Your task to perform on an android device: Check the settings for the Twitter app Image 0: 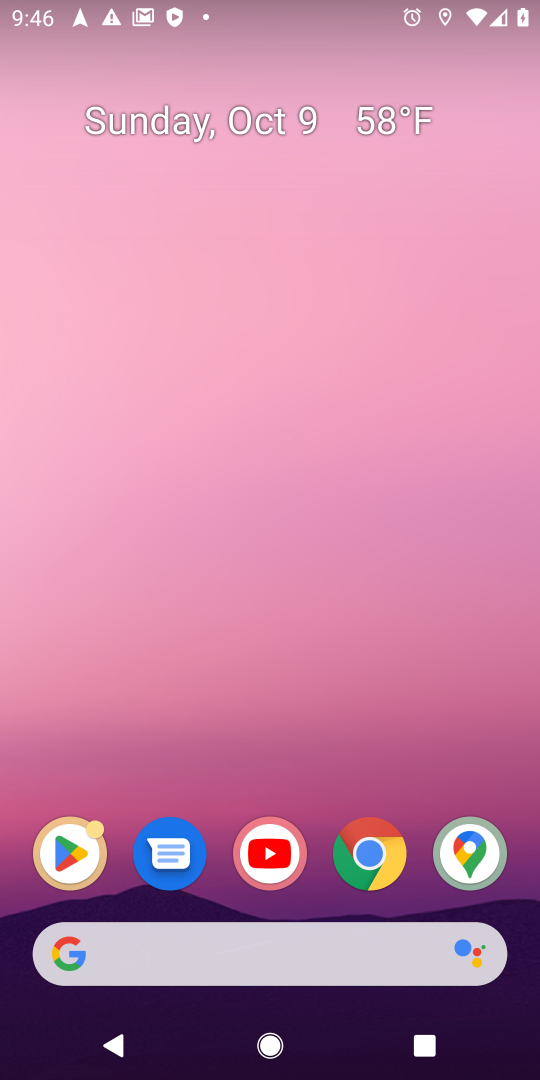
Step 0: drag from (405, 799) to (417, 312)
Your task to perform on an android device: Check the settings for the Twitter app Image 1: 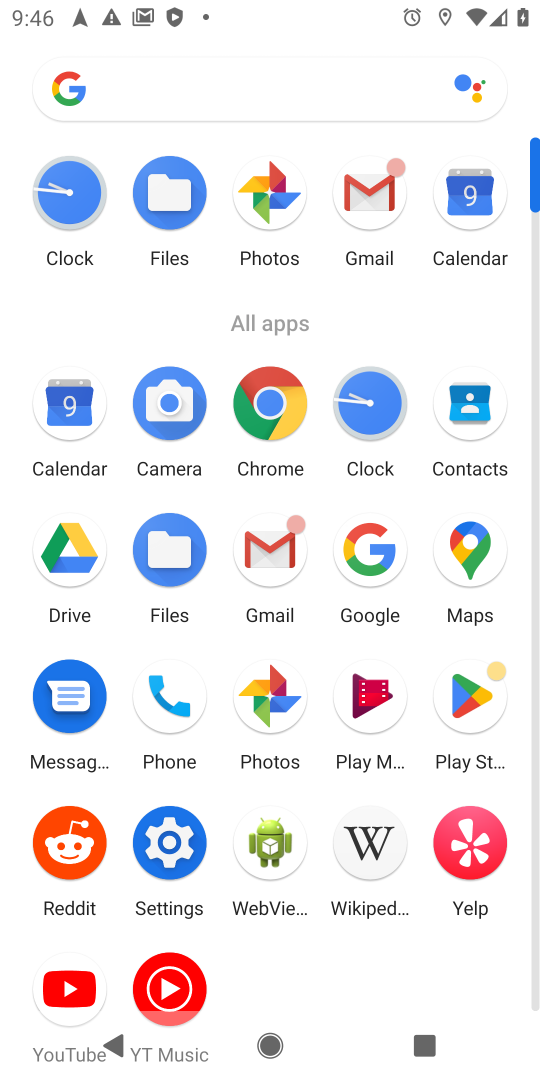
Step 1: click (479, 706)
Your task to perform on an android device: Check the settings for the Twitter app Image 2: 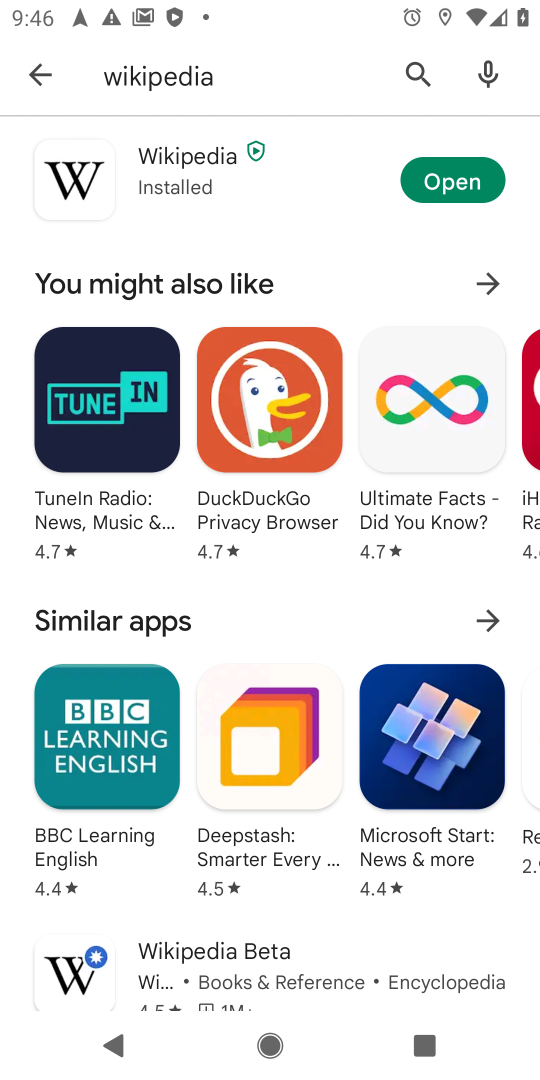
Step 2: click (413, 80)
Your task to perform on an android device: Check the settings for the Twitter app Image 3: 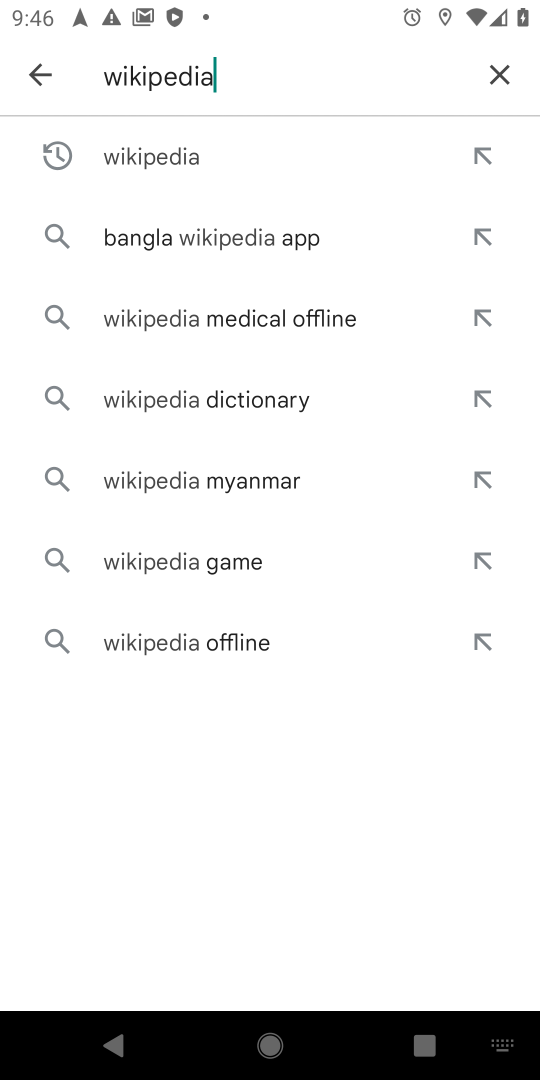
Step 3: click (503, 73)
Your task to perform on an android device: Check the settings for the Twitter app Image 4: 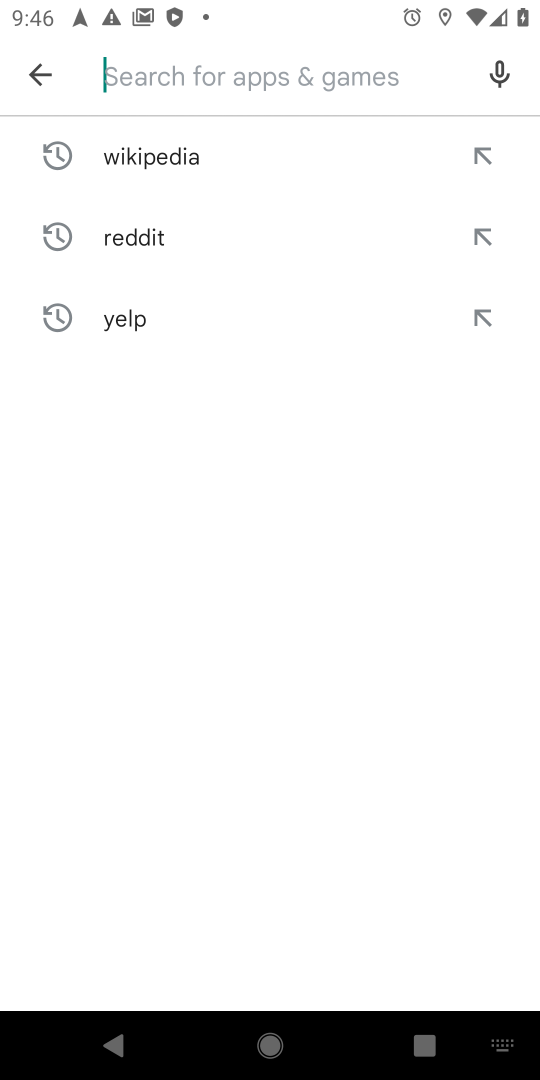
Step 4: type "twitter"
Your task to perform on an android device: Check the settings for the Twitter app Image 5: 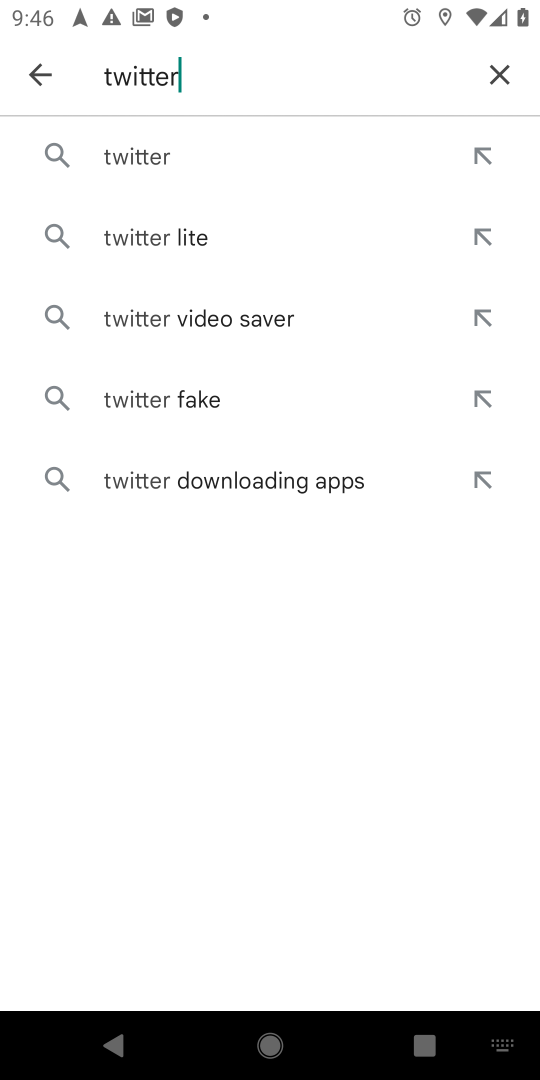
Step 5: click (110, 163)
Your task to perform on an android device: Check the settings for the Twitter app Image 6: 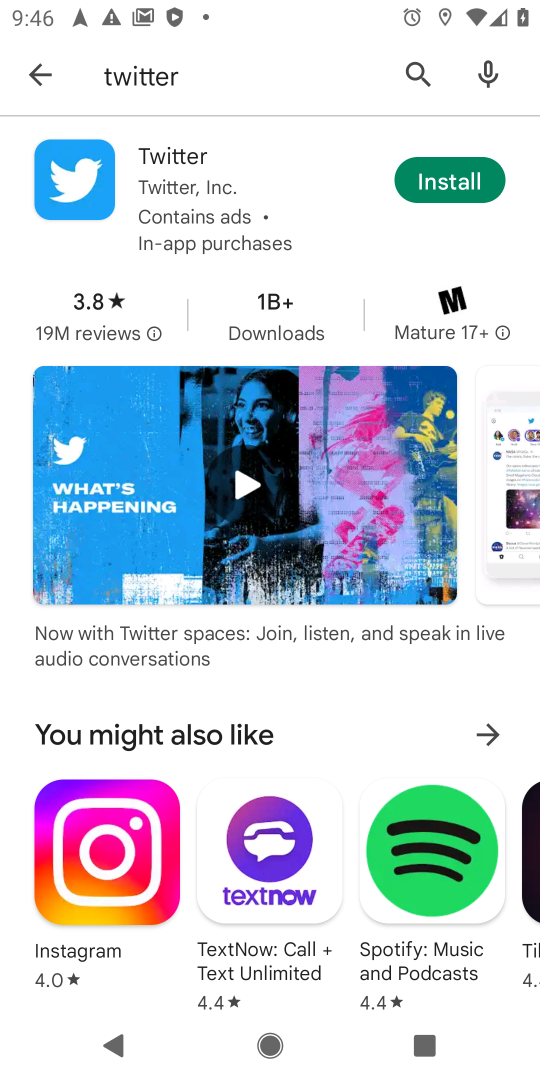
Step 6: click (415, 195)
Your task to perform on an android device: Check the settings for the Twitter app Image 7: 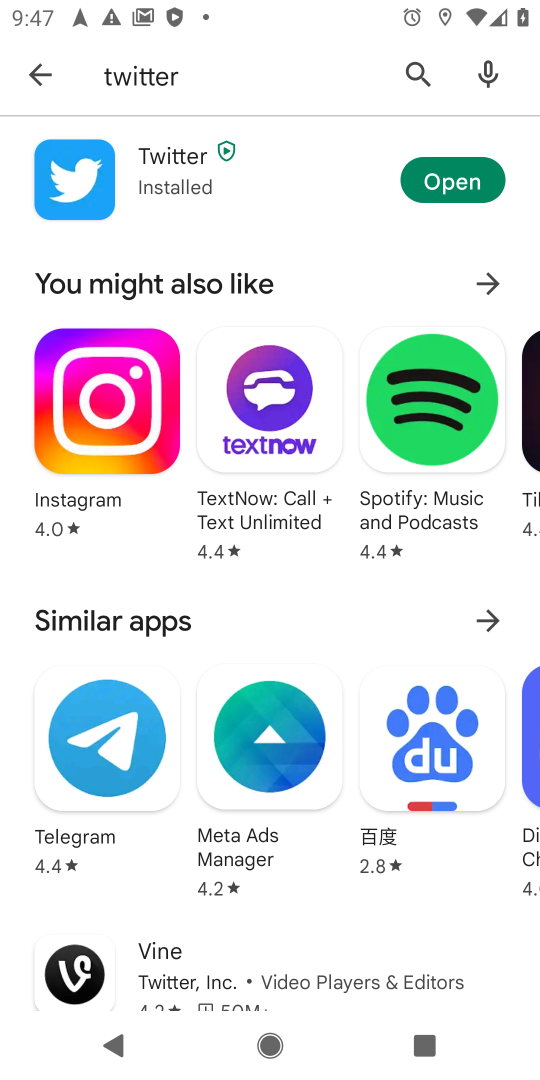
Step 7: click (422, 194)
Your task to perform on an android device: Check the settings for the Twitter app Image 8: 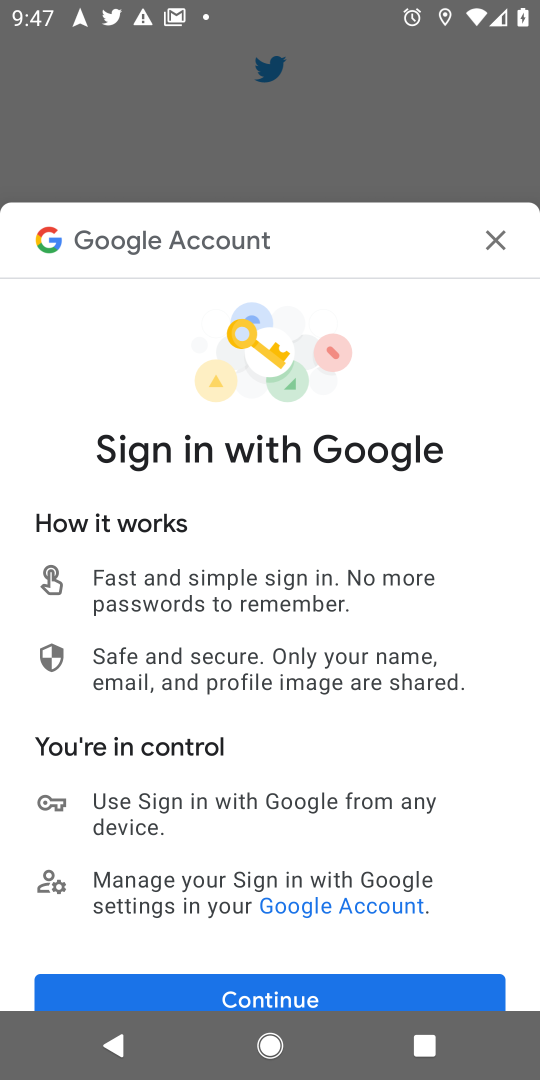
Step 8: click (501, 240)
Your task to perform on an android device: Check the settings for the Twitter app Image 9: 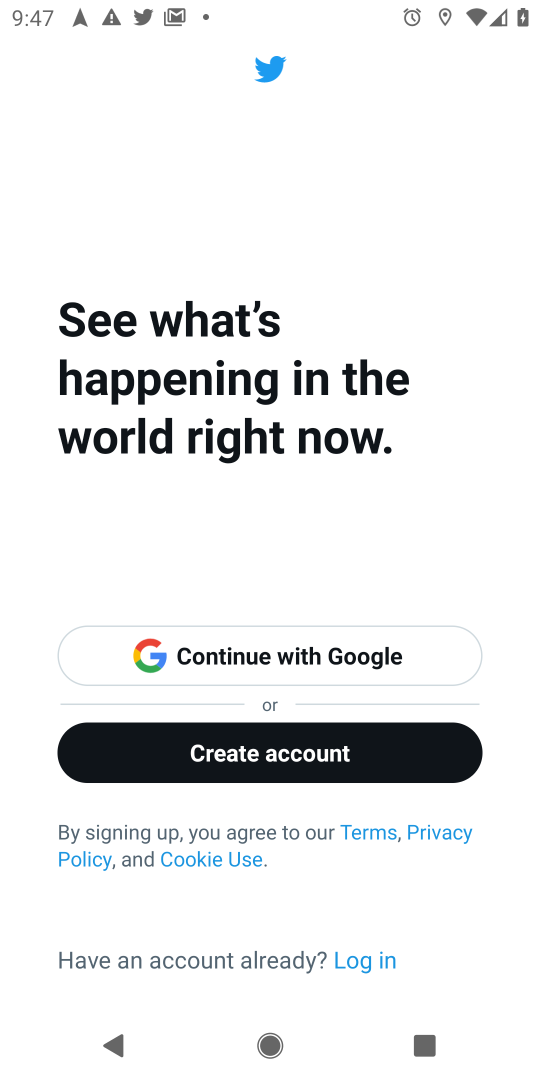
Step 9: task complete